Your task to perform on an android device: uninstall "Booking.com: Hotels and more" Image 0: 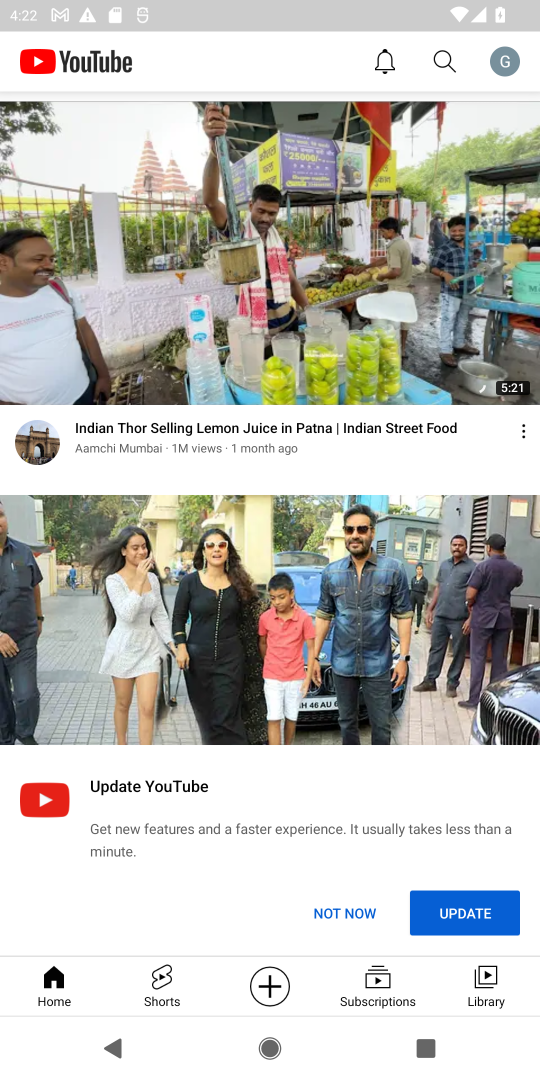
Step 0: press home button
Your task to perform on an android device: uninstall "Booking.com: Hotels and more" Image 1: 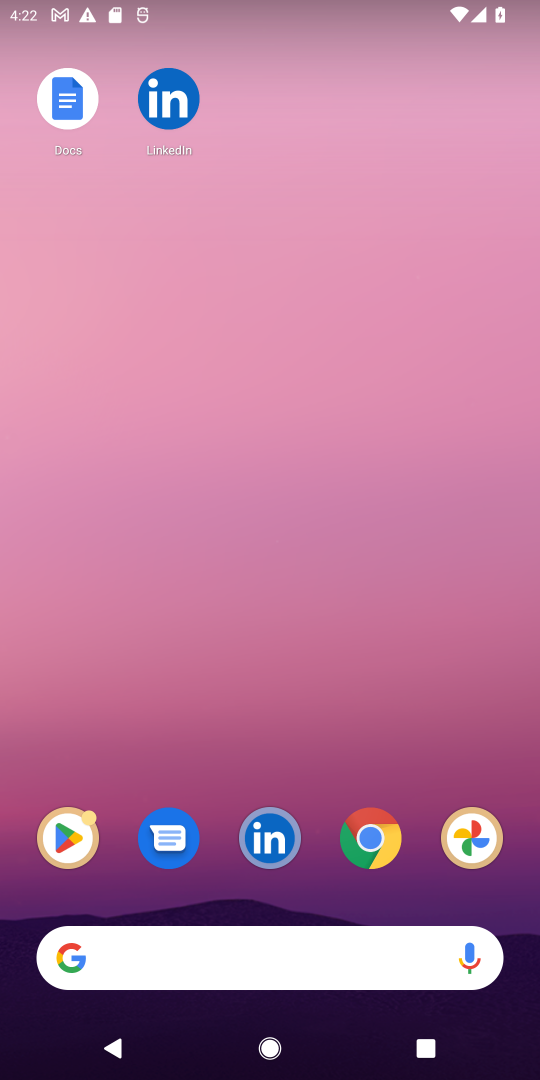
Step 1: click (59, 840)
Your task to perform on an android device: uninstall "Booking.com: Hotels and more" Image 2: 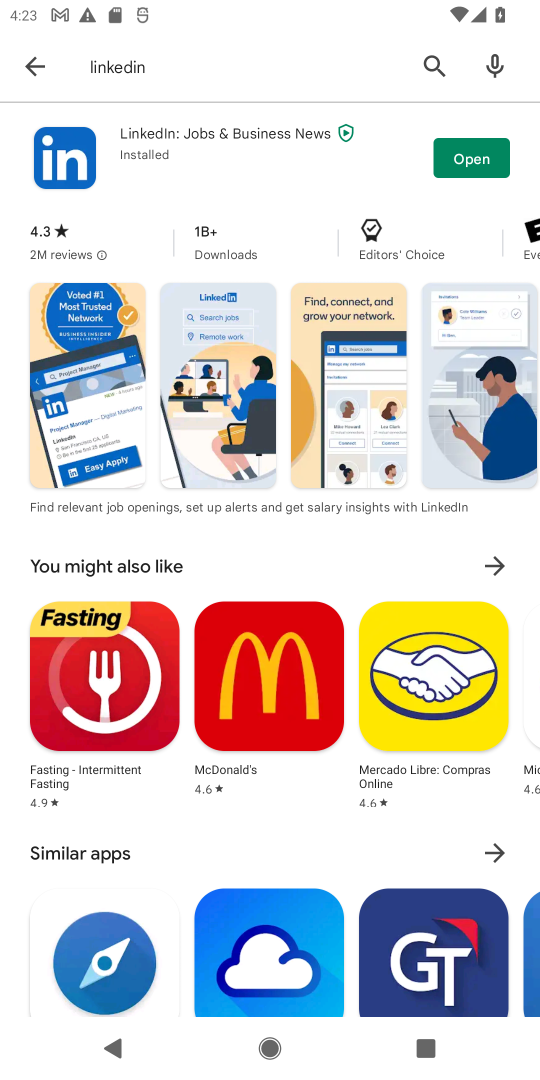
Step 2: click (427, 60)
Your task to perform on an android device: uninstall "Booking.com: Hotels and more" Image 3: 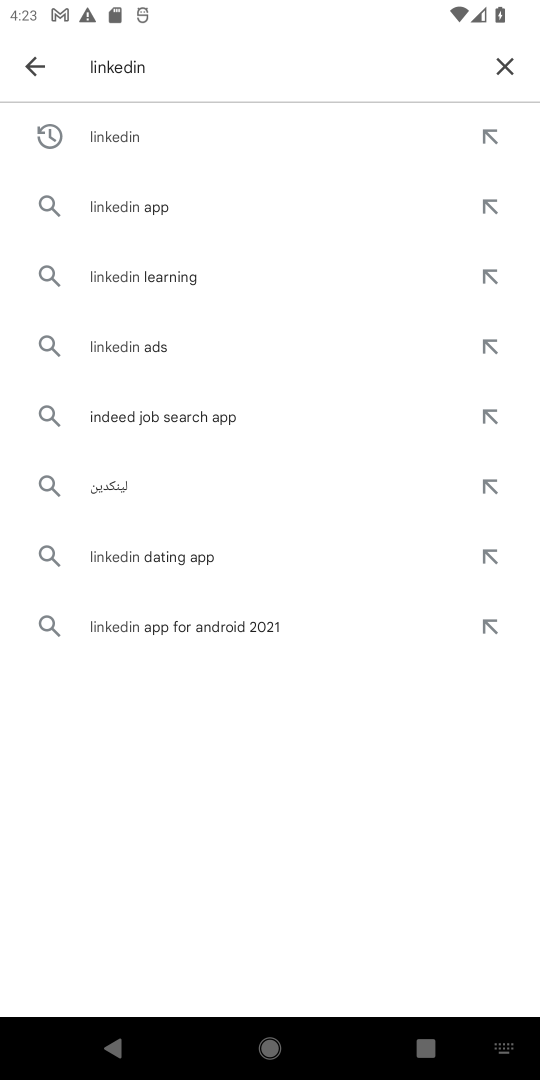
Step 3: type "Booking.com: Hotels and more"
Your task to perform on an android device: uninstall "Booking.com: Hotels and more" Image 4: 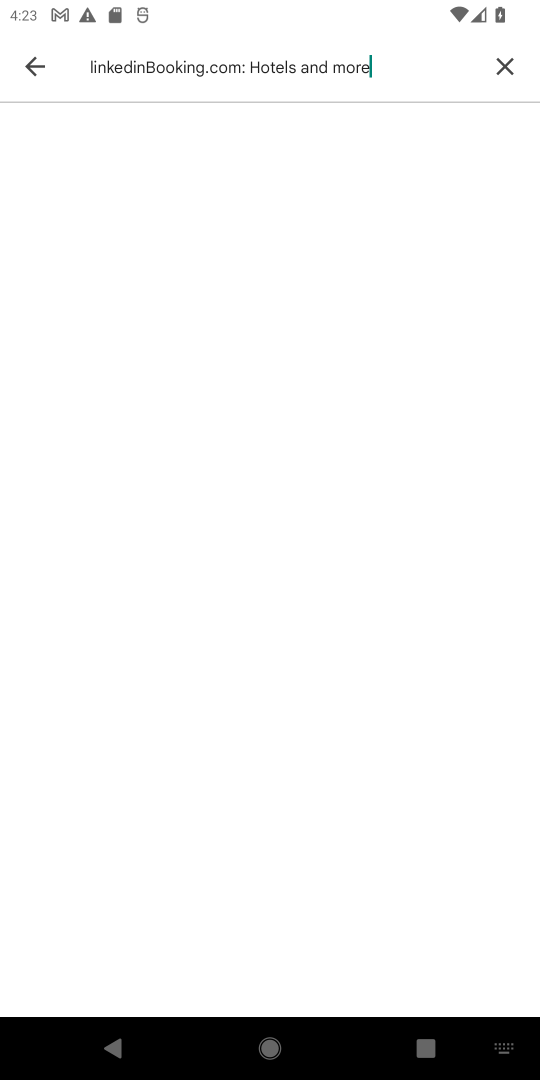
Step 4: click (145, 71)
Your task to perform on an android device: uninstall "Booking.com: Hotels and more" Image 5: 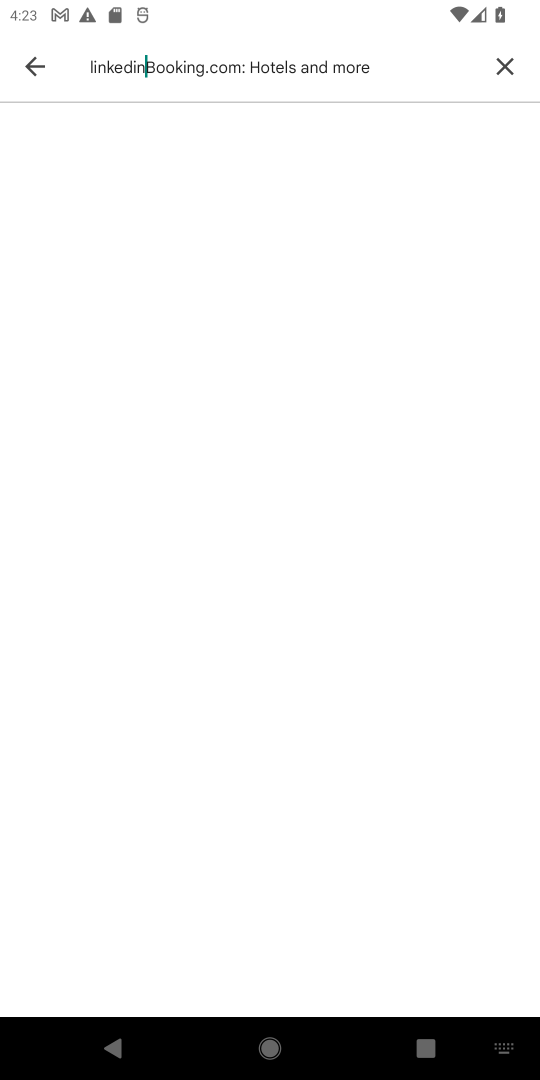
Step 5: drag from (145, 71) to (95, 74)
Your task to perform on an android device: uninstall "Booking.com: Hotels and more" Image 6: 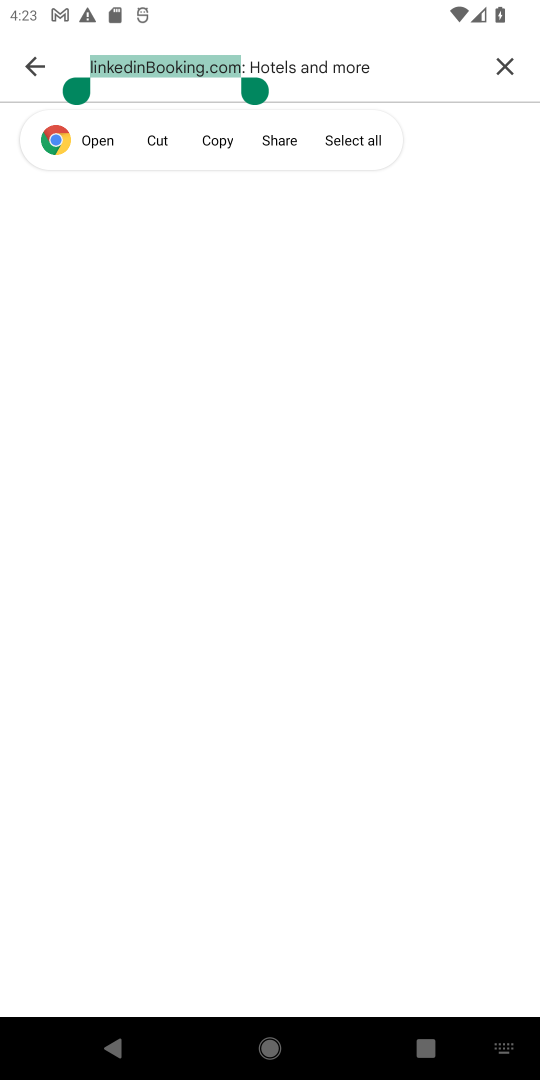
Step 6: drag from (251, 91) to (154, 79)
Your task to perform on an android device: uninstall "Booking.com: Hotels and more" Image 7: 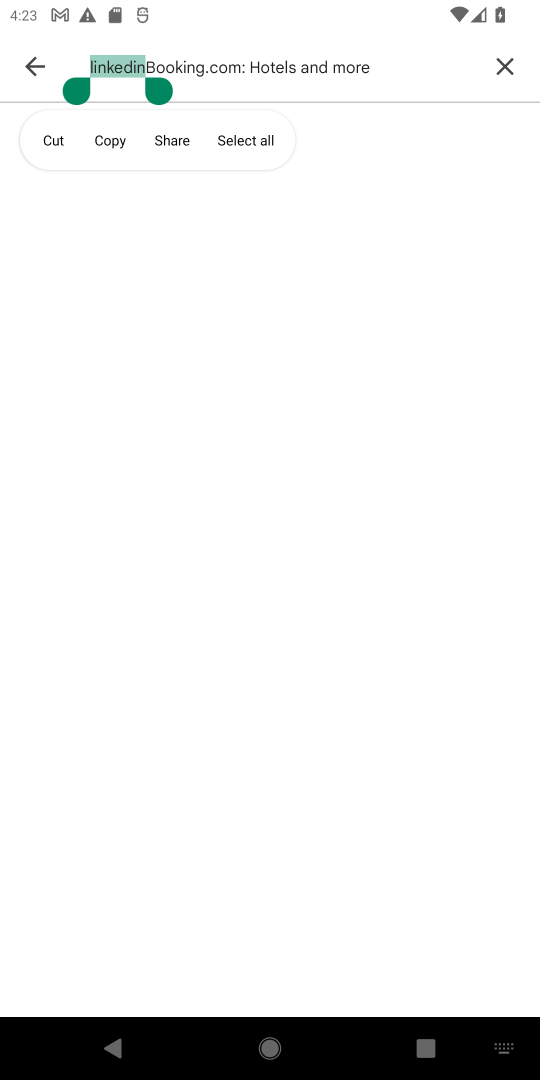
Step 7: click (51, 142)
Your task to perform on an android device: uninstall "Booking.com: Hotels and more" Image 8: 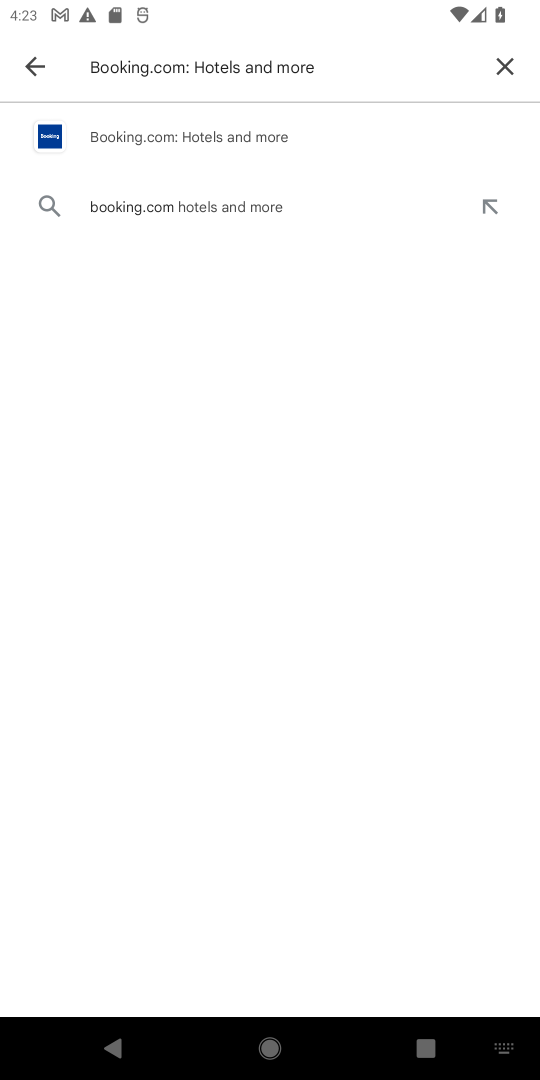
Step 8: click (210, 145)
Your task to perform on an android device: uninstall "Booking.com: Hotels and more" Image 9: 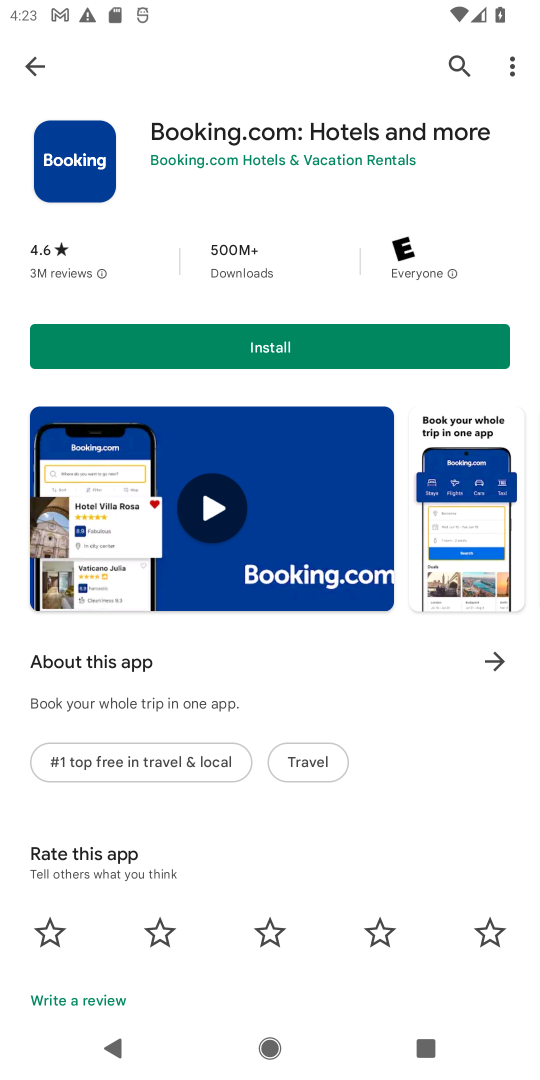
Step 9: task complete